Your task to perform on an android device: Go to Maps Image 0: 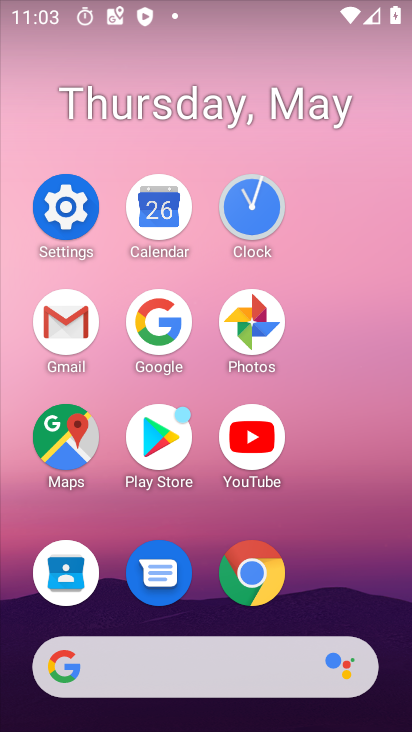
Step 0: click (61, 418)
Your task to perform on an android device: Go to Maps Image 1: 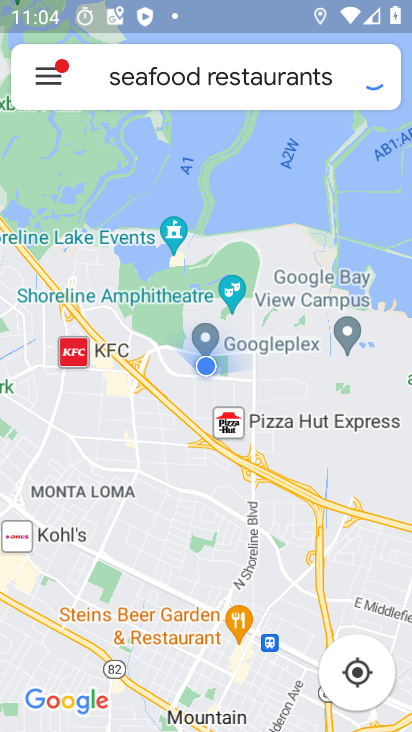
Step 1: task complete